Your task to perform on an android device: Go to Android settings Image 0: 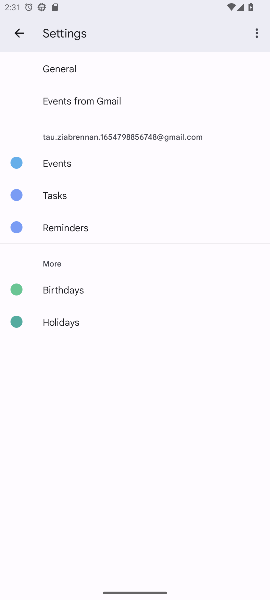
Step 0: press home button
Your task to perform on an android device: Go to Android settings Image 1: 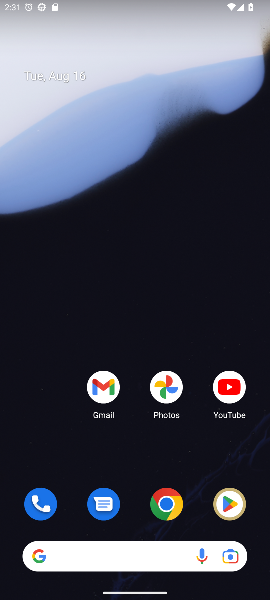
Step 1: drag from (128, 461) to (140, 0)
Your task to perform on an android device: Go to Android settings Image 2: 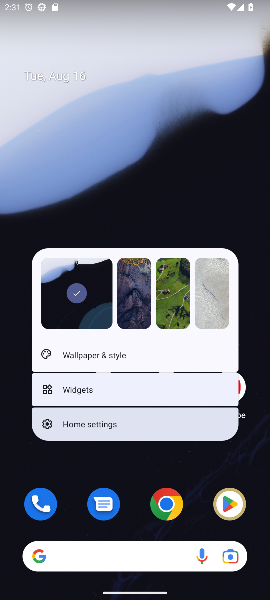
Step 2: click (135, 161)
Your task to perform on an android device: Go to Android settings Image 3: 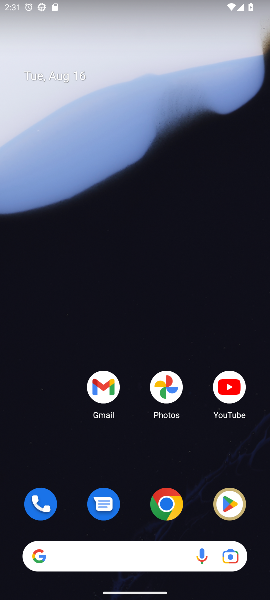
Step 3: drag from (139, 526) to (132, 40)
Your task to perform on an android device: Go to Android settings Image 4: 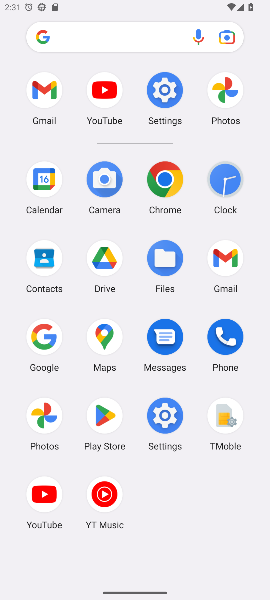
Step 4: click (163, 91)
Your task to perform on an android device: Go to Android settings Image 5: 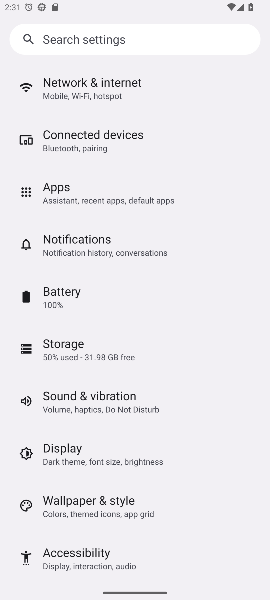
Step 5: task complete